Your task to perform on an android device: Go to settings Image 0: 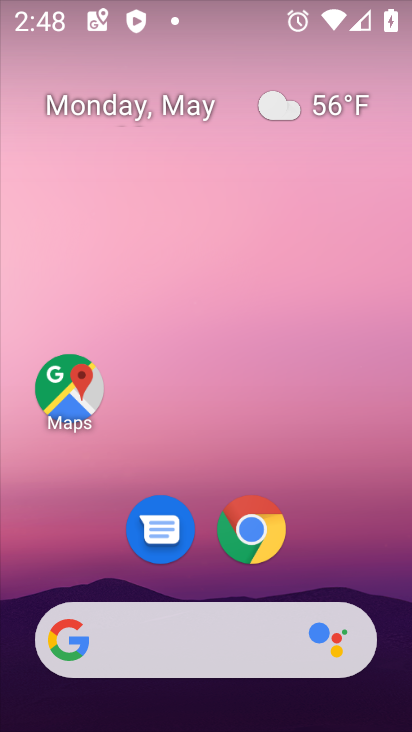
Step 0: drag from (321, 566) to (320, 50)
Your task to perform on an android device: Go to settings Image 1: 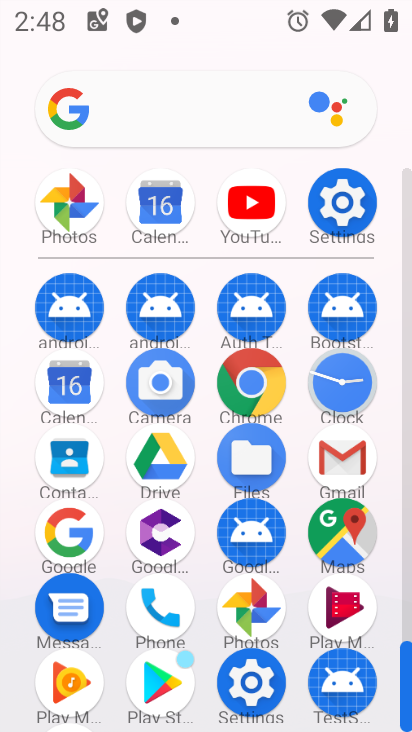
Step 1: click (343, 200)
Your task to perform on an android device: Go to settings Image 2: 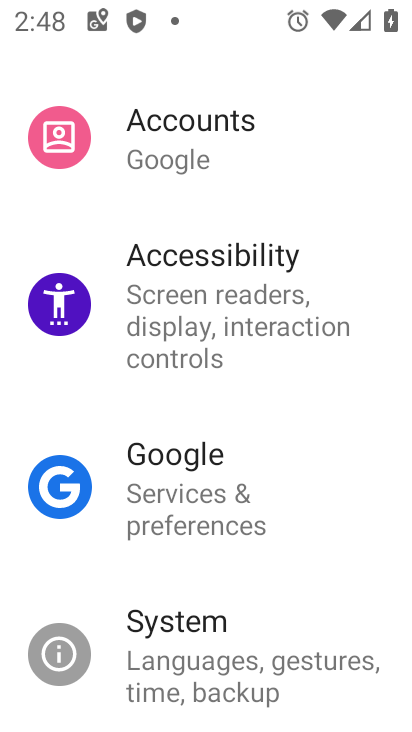
Step 2: task complete